Your task to perform on an android device: toggle wifi Image 0: 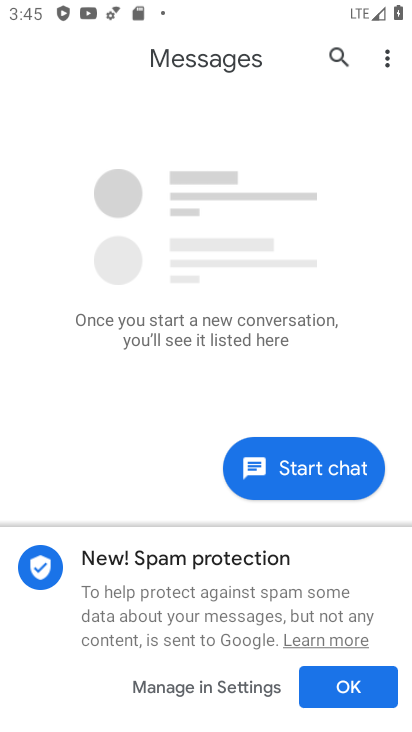
Step 0: press home button
Your task to perform on an android device: toggle wifi Image 1: 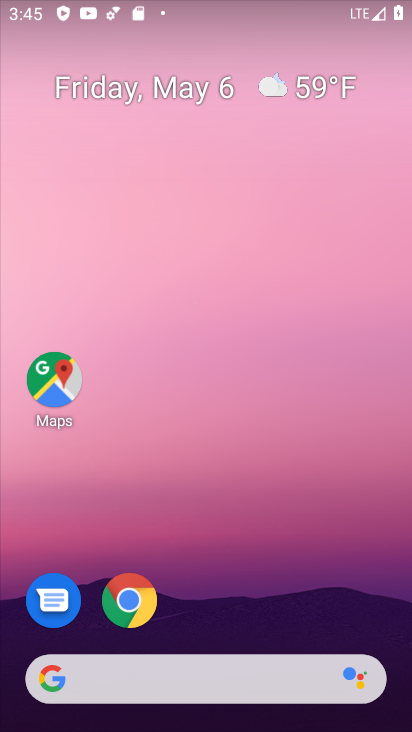
Step 1: drag from (210, 612) to (321, 104)
Your task to perform on an android device: toggle wifi Image 2: 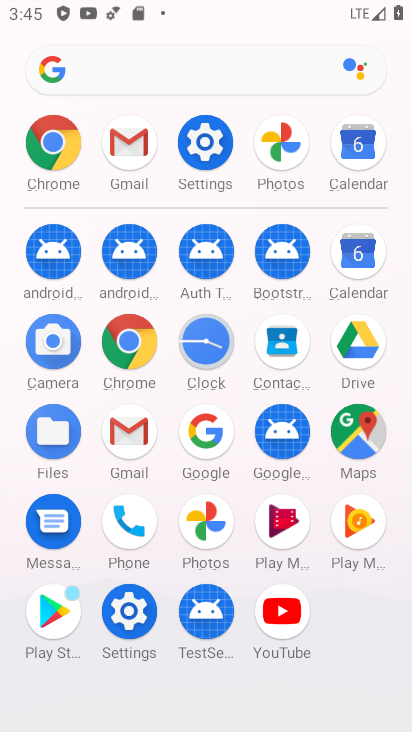
Step 2: click (117, 615)
Your task to perform on an android device: toggle wifi Image 3: 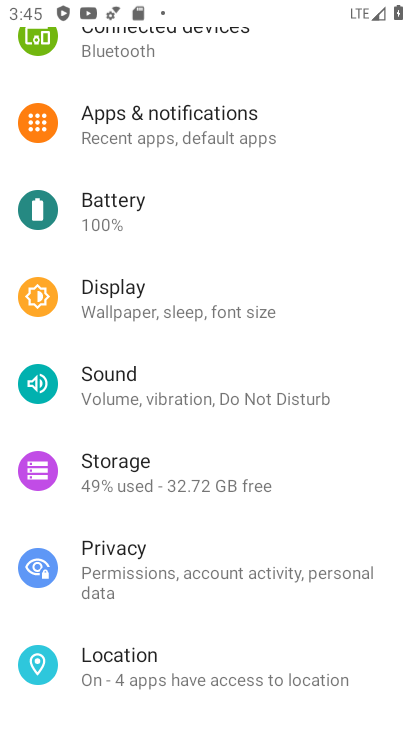
Step 3: drag from (164, 195) to (184, 615)
Your task to perform on an android device: toggle wifi Image 4: 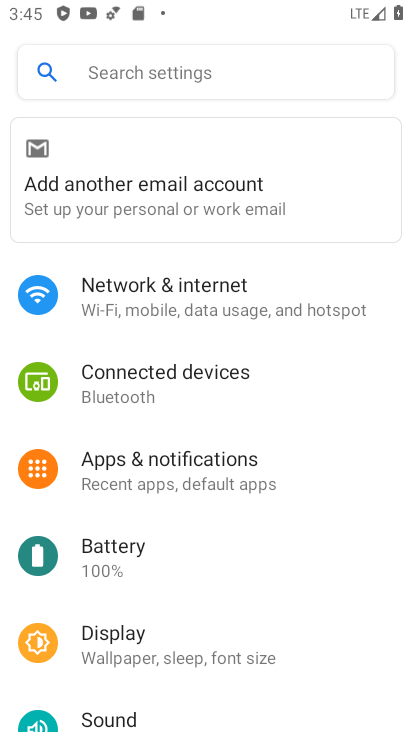
Step 4: click (176, 293)
Your task to perform on an android device: toggle wifi Image 5: 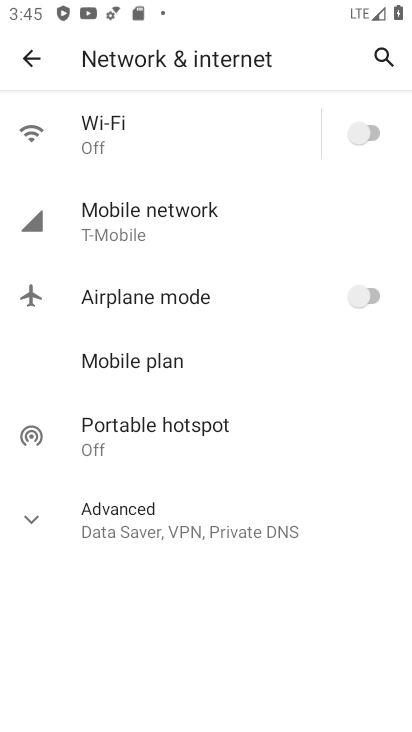
Step 5: click (377, 133)
Your task to perform on an android device: toggle wifi Image 6: 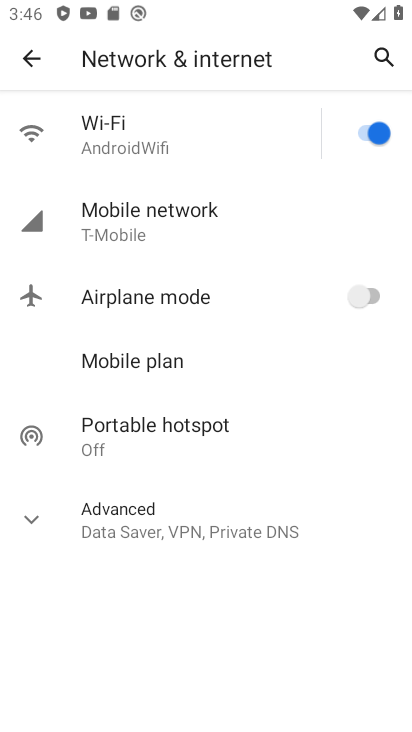
Step 6: task complete